Your task to perform on an android device: turn off notifications settings in the gmail app Image 0: 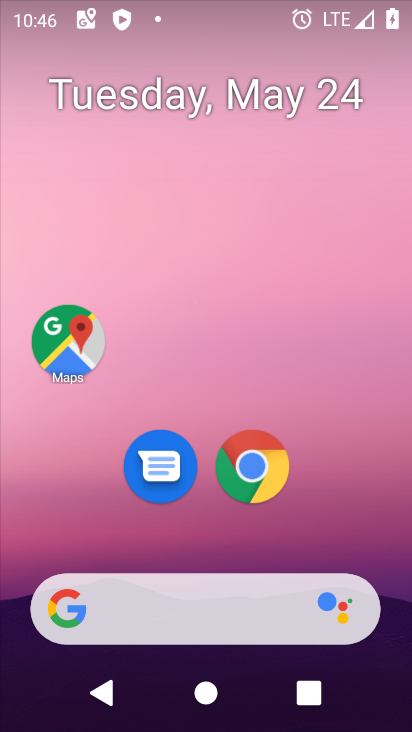
Step 0: drag from (391, 561) to (393, 212)
Your task to perform on an android device: turn off notifications settings in the gmail app Image 1: 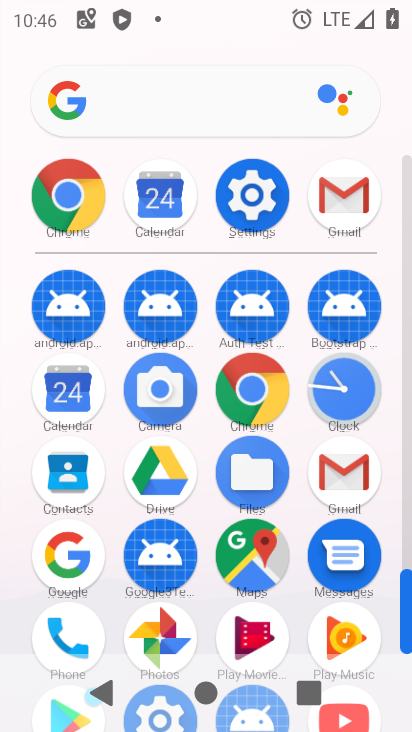
Step 1: click (362, 484)
Your task to perform on an android device: turn off notifications settings in the gmail app Image 2: 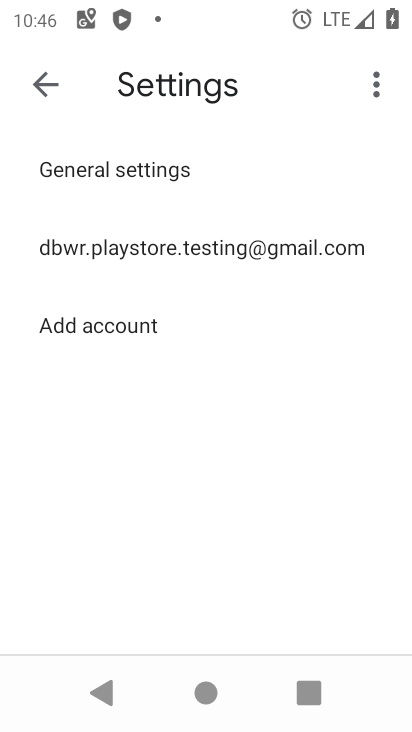
Step 2: click (329, 261)
Your task to perform on an android device: turn off notifications settings in the gmail app Image 3: 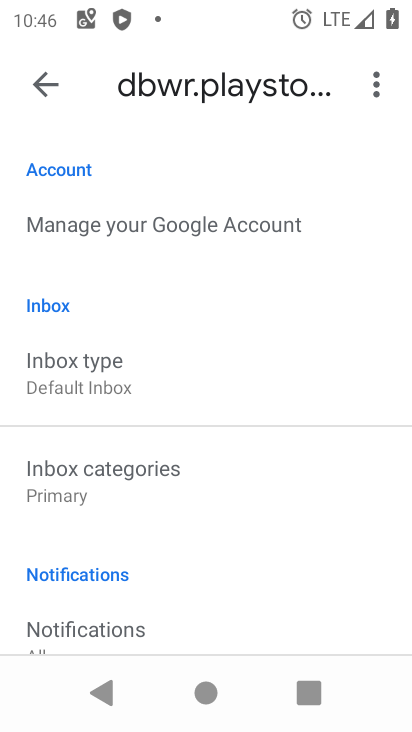
Step 3: drag from (331, 532) to (326, 448)
Your task to perform on an android device: turn off notifications settings in the gmail app Image 4: 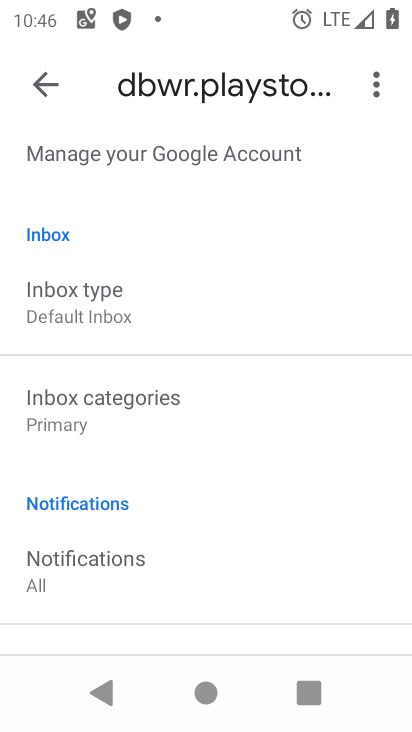
Step 4: drag from (343, 566) to (350, 471)
Your task to perform on an android device: turn off notifications settings in the gmail app Image 5: 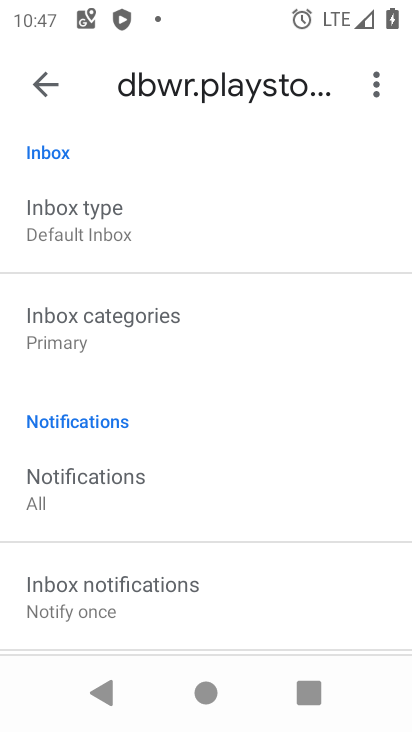
Step 5: drag from (352, 586) to (356, 526)
Your task to perform on an android device: turn off notifications settings in the gmail app Image 6: 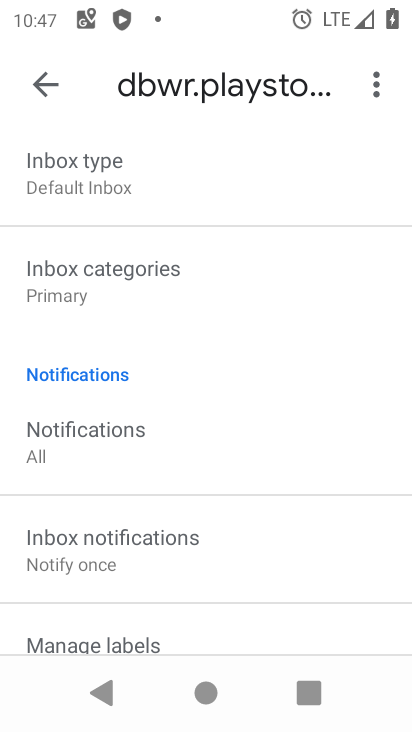
Step 6: drag from (361, 585) to (357, 500)
Your task to perform on an android device: turn off notifications settings in the gmail app Image 7: 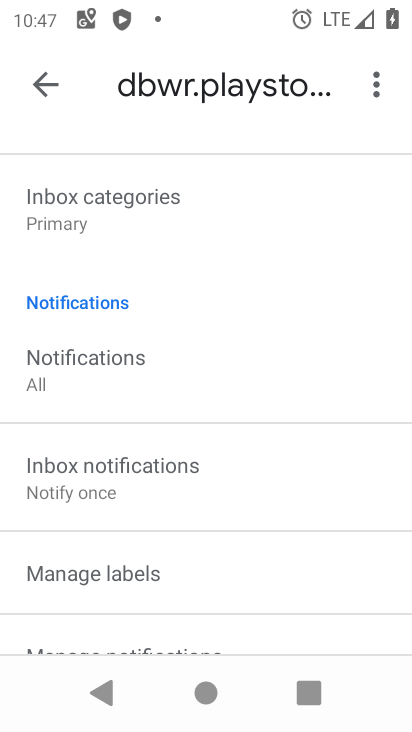
Step 7: drag from (353, 585) to (358, 495)
Your task to perform on an android device: turn off notifications settings in the gmail app Image 8: 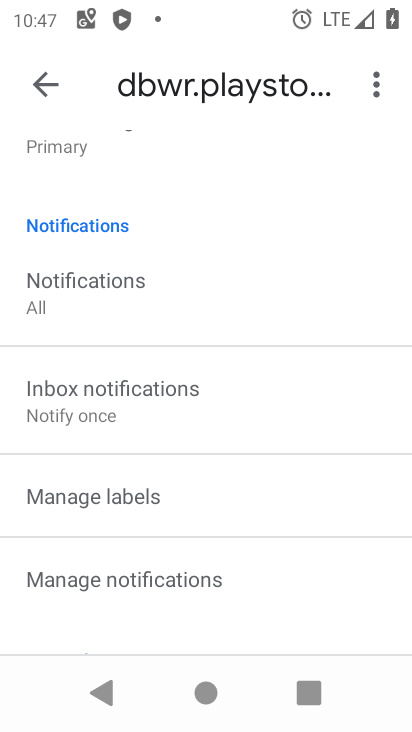
Step 8: drag from (362, 574) to (378, 489)
Your task to perform on an android device: turn off notifications settings in the gmail app Image 9: 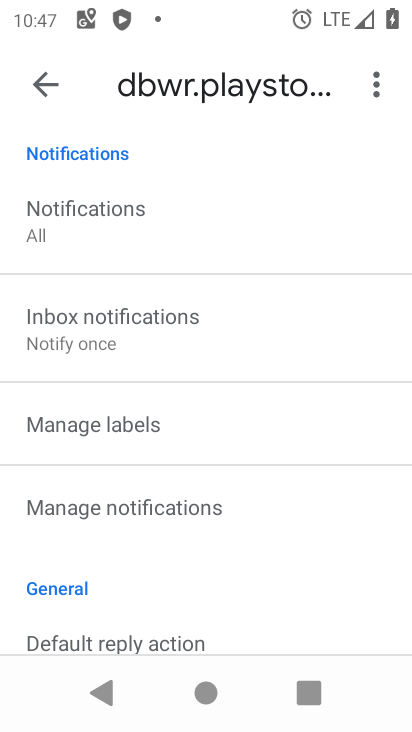
Step 9: drag from (362, 578) to (360, 491)
Your task to perform on an android device: turn off notifications settings in the gmail app Image 10: 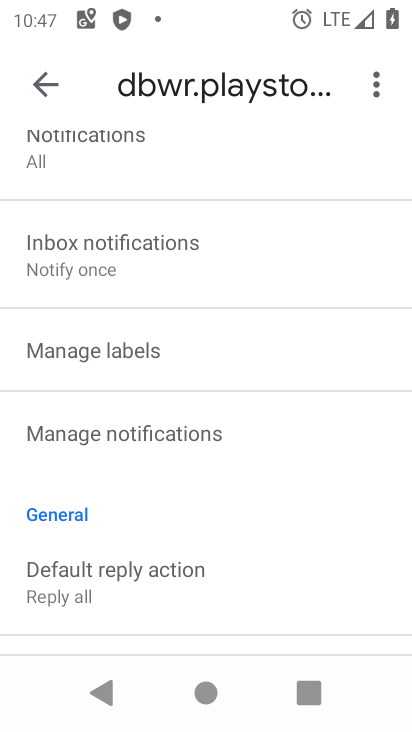
Step 10: drag from (360, 575) to (347, 492)
Your task to perform on an android device: turn off notifications settings in the gmail app Image 11: 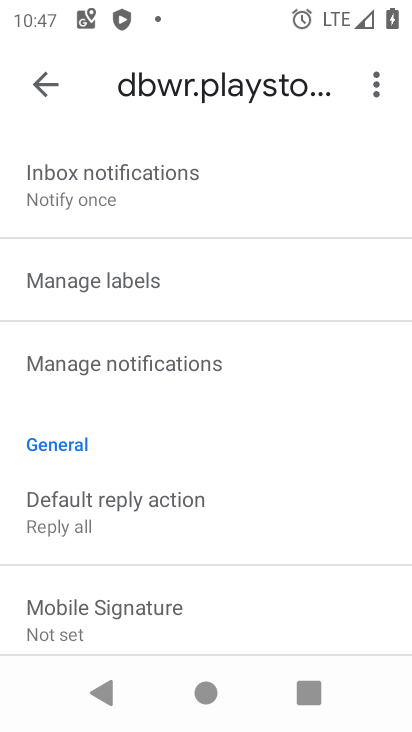
Step 11: click (262, 363)
Your task to perform on an android device: turn off notifications settings in the gmail app Image 12: 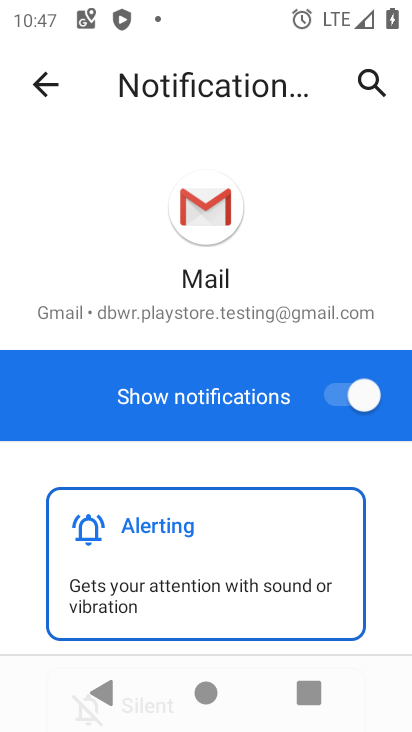
Step 12: click (346, 409)
Your task to perform on an android device: turn off notifications settings in the gmail app Image 13: 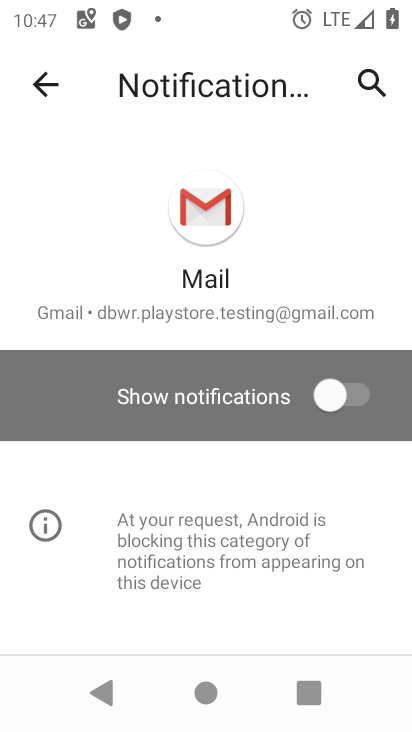
Step 13: task complete